Your task to perform on an android device: Go to privacy settings Image 0: 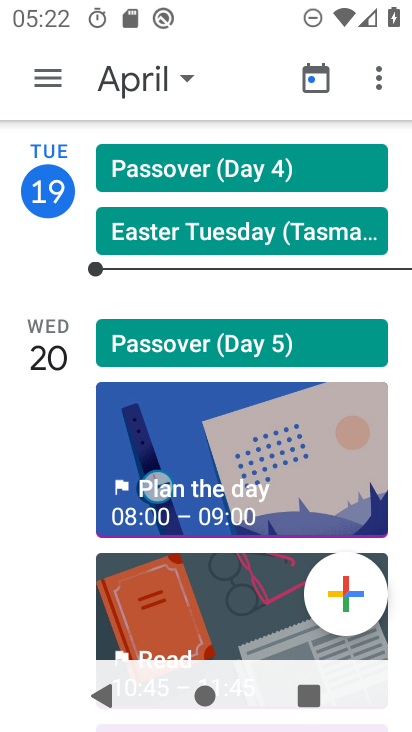
Step 0: press home button
Your task to perform on an android device: Go to privacy settings Image 1: 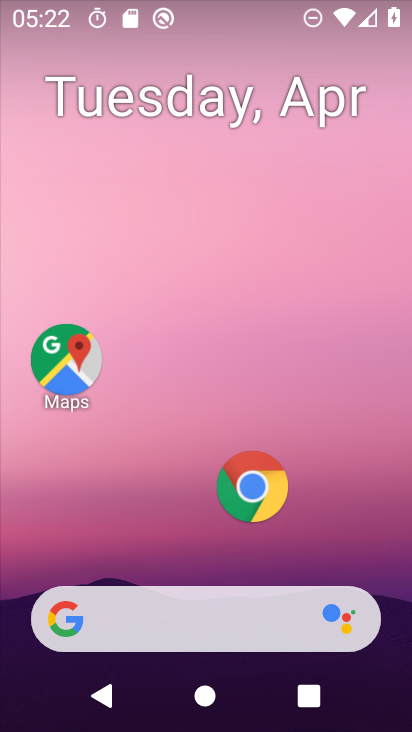
Step 1: drag from (150, 534) to (245, 9)
Your task to perform on an android device: Go to privacy settings Image 2: 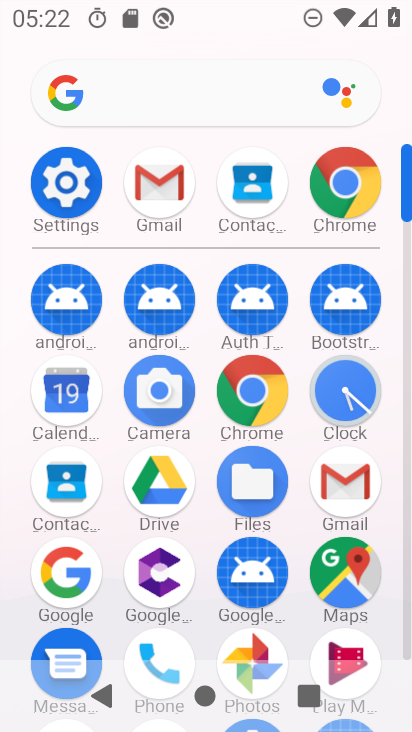
Step 2: click (67, 188)
Your task to perform on an android device: Go to privacy settings Image 3: 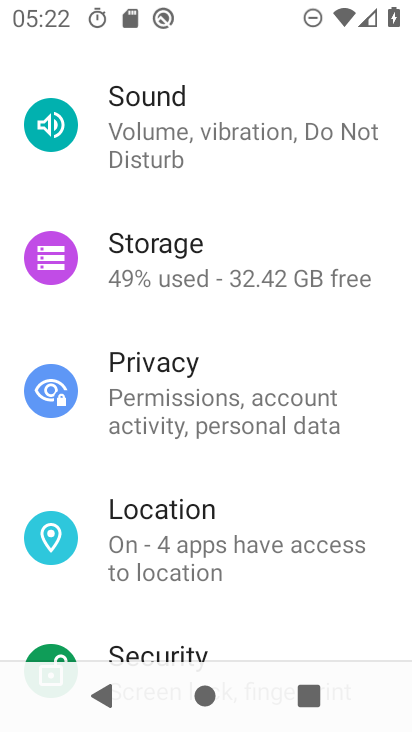
Step 3: click (169, 399)
Your task to perform on an android device: Go to privacy settings Image 4: 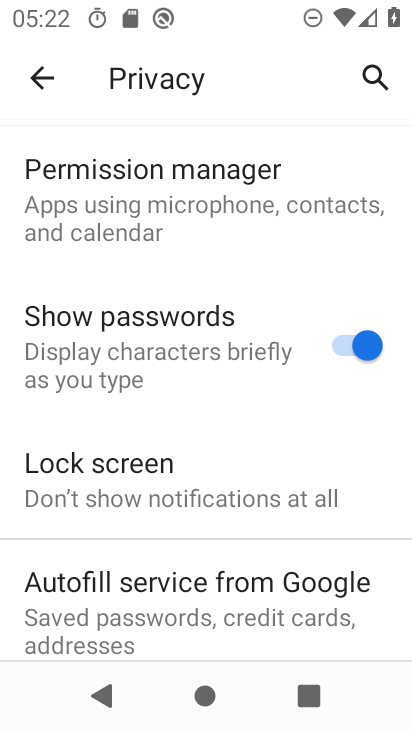
Step 4: task complete